Your task to perform on an android device: Open location settings Image 0: 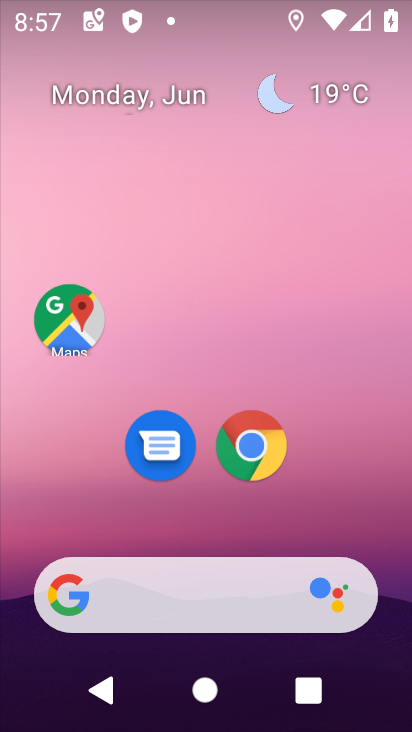
Step 0: drag from (219, 536) to (231, 57)
Your task to perform on an android device: Open location settings Image 1: 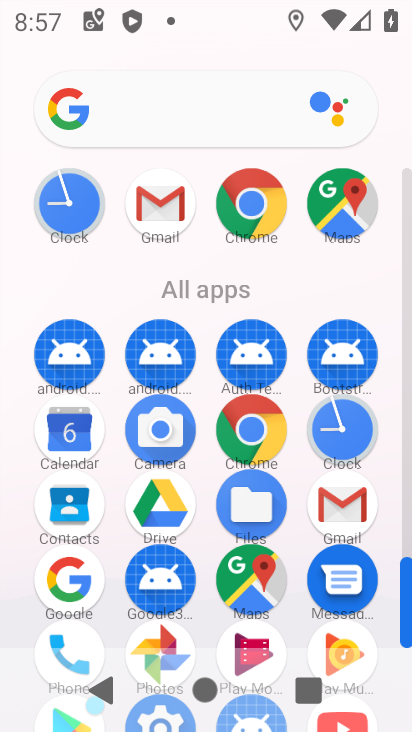
Step 1: drag from (202, 623) to (215, 225)
Your task to perform on an android device: Open location settings Image 2: 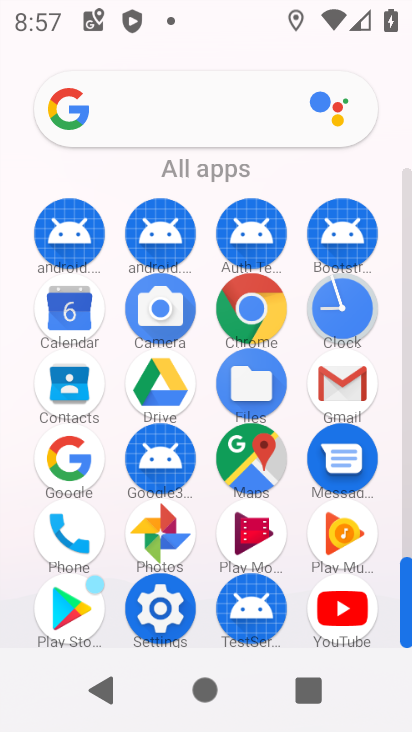
Step 2: click (159, 594)
Your task to perform on an android device: Open location settings Image 3: 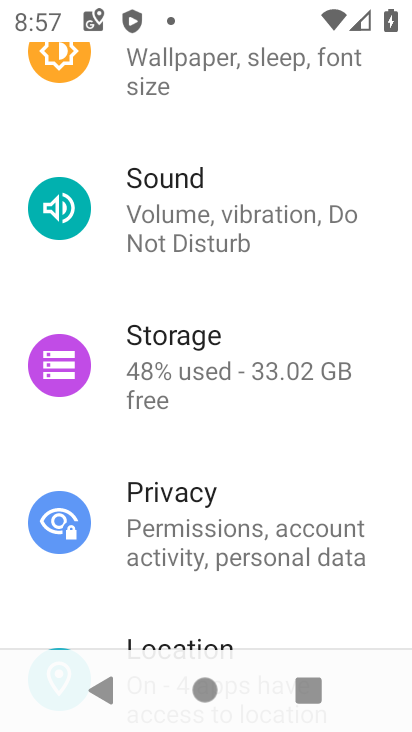
Step 3: click (242, 633)
Your task to perform on an android device: Open location settings Image 4: 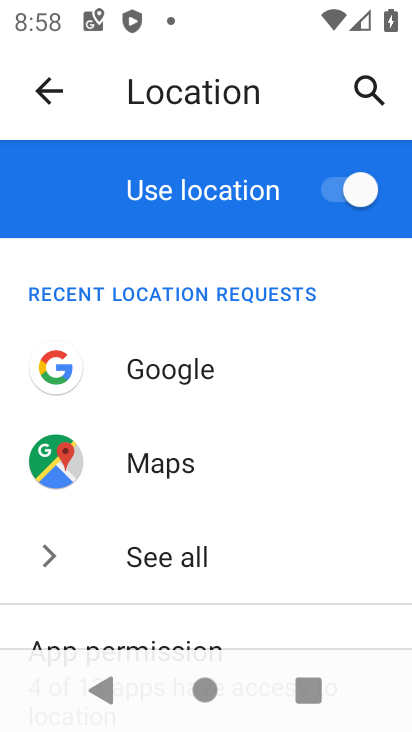
Step 4: drag from (114, 607) to (180, 192)
Your task to perform on an android device: Open location settings Image 5: 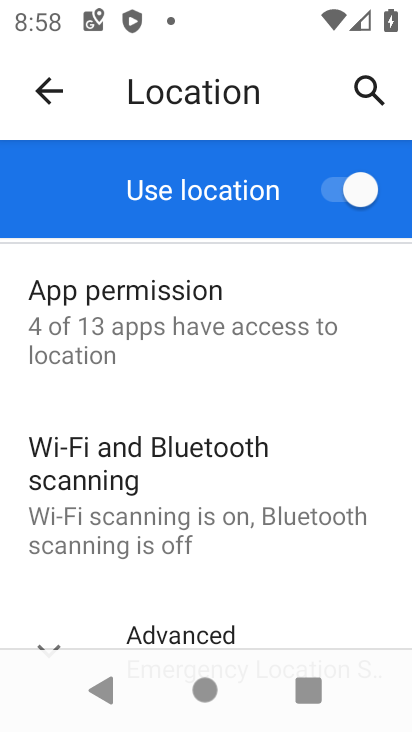
Step 5: drag from (193, 621) to (249, 212)
Your task to perform on an android device: Open location settings Image 6: 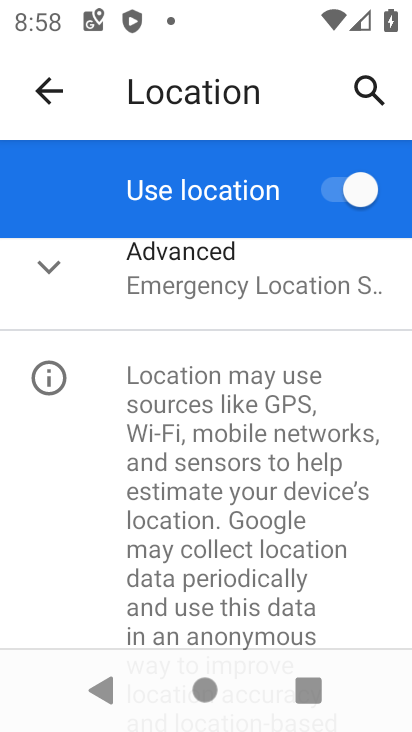
Step 6: click (43, 258)
Your task to perform on an android device: Open location settings Image 7: 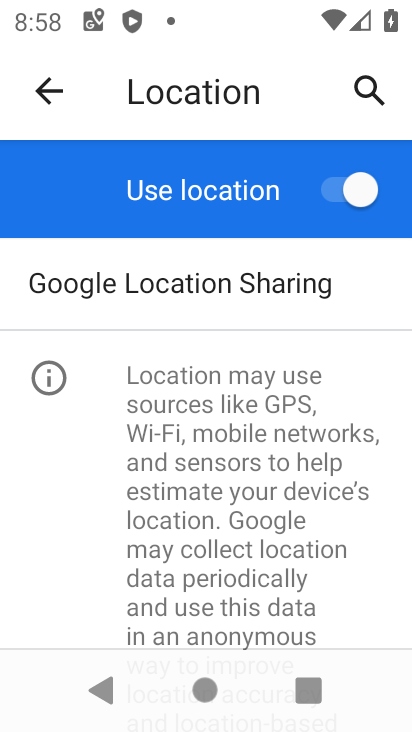
Step 7: task complete